Your task to perform on an android device: What is the recent news? Image 0: 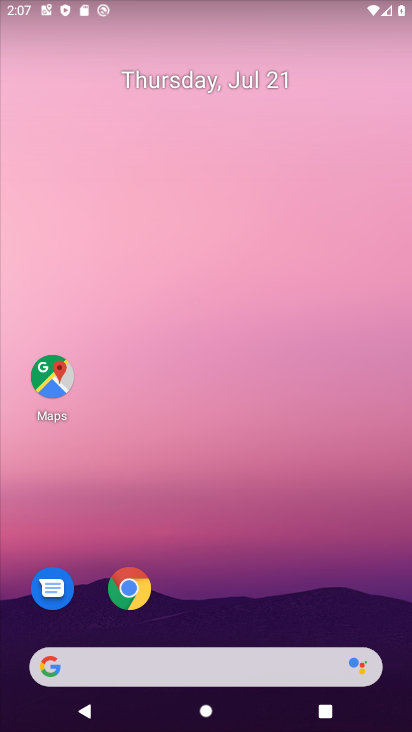
Step 0: drag from (223, 628) to (276, 420)
Your task to perform on an android device: What is the recent news? Image 1: 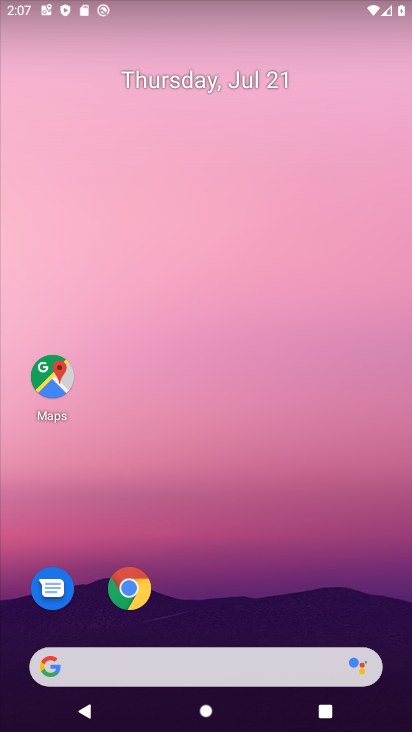
Step 1: drag from (199, 585) to (232, 389)
Your task to perform on an android device: What is the recent news? Image 2: 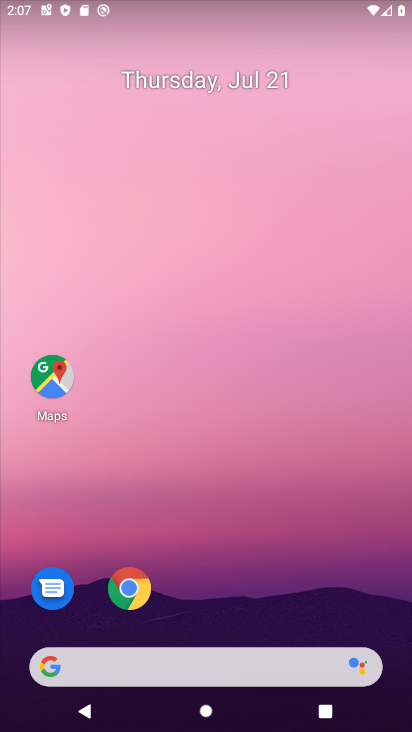
Step 2: drag from (195, 593) to (249, 247)
Your task to perform on an android device: What is the recent news? Image 3: 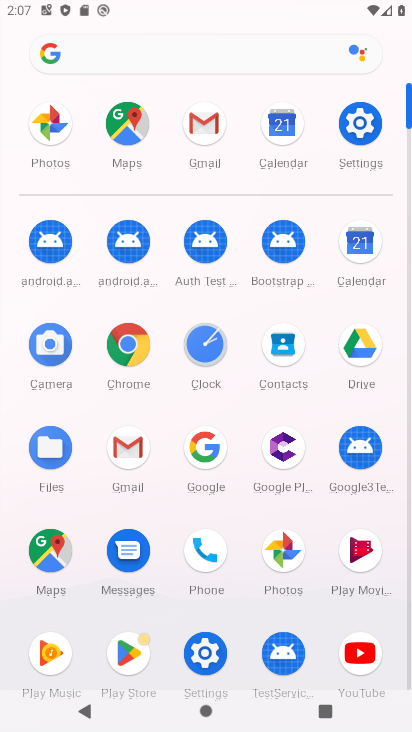
Step 3: click (136, 55)
Your task to perform on an android device: What is the recent news? Image 4: 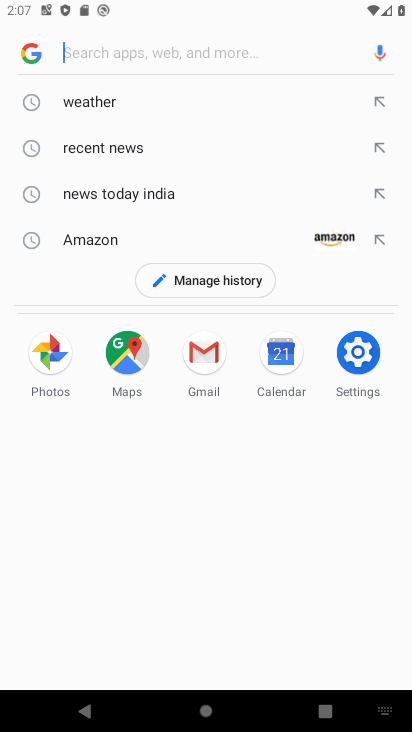
Step 4: click (86, 149)
Your task to perform on an android device: What is the recent news? Image 5: 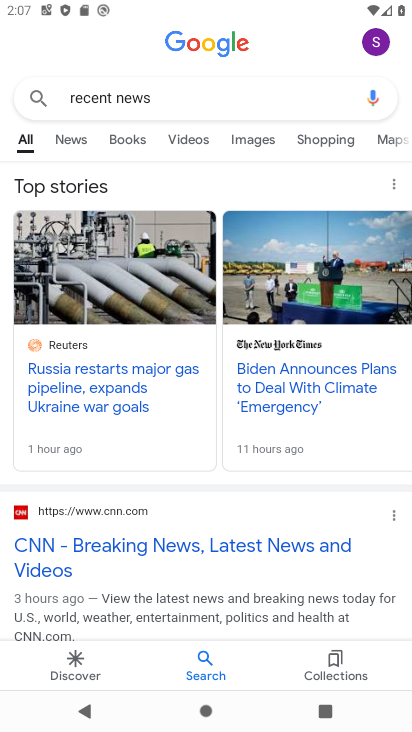
Step 5: task complete